Your task to perform on an android device: Open settings Image 0: 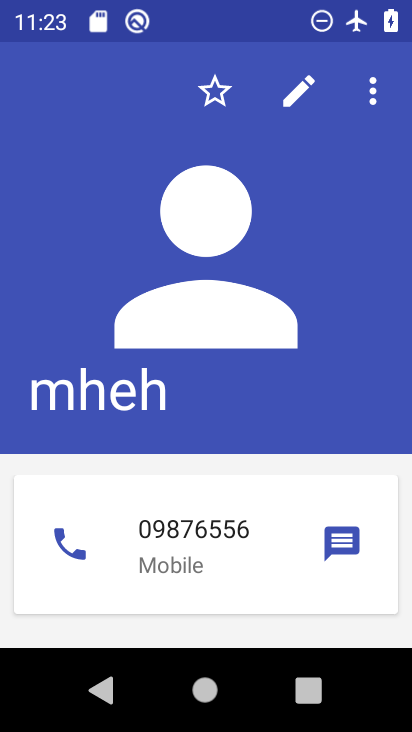
Step 0: press home button
Your task to perform on an android device: Open settings Image 1: 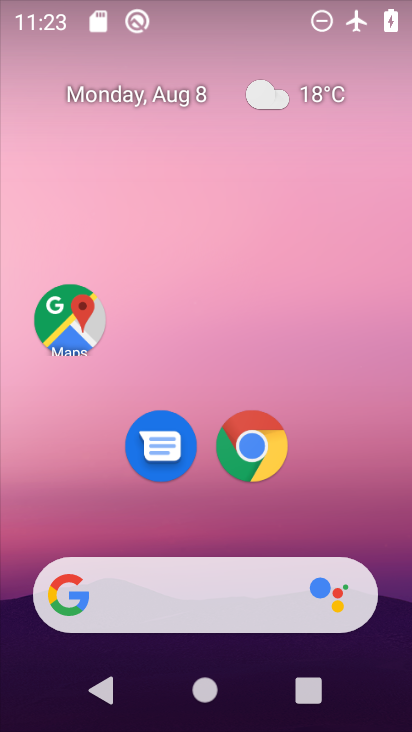
Step 1: drag from (390, 651) to (317, 166)
Your task to perform on an android device: Open settings Image 2: 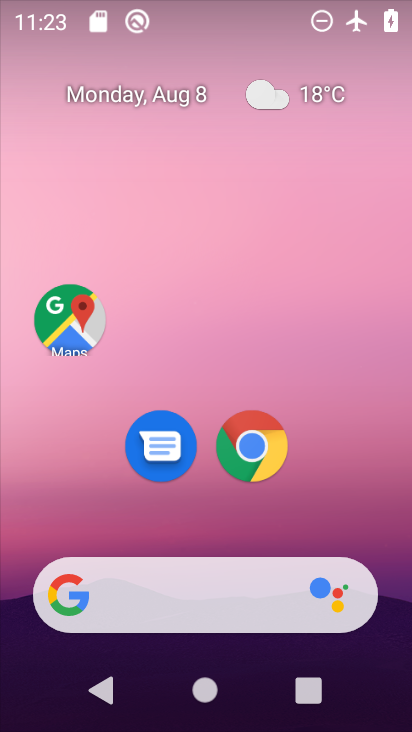
Step 2: drag from (411, 654) to (374, 194)
Your task to perform on an android device: Open settings Image 3: 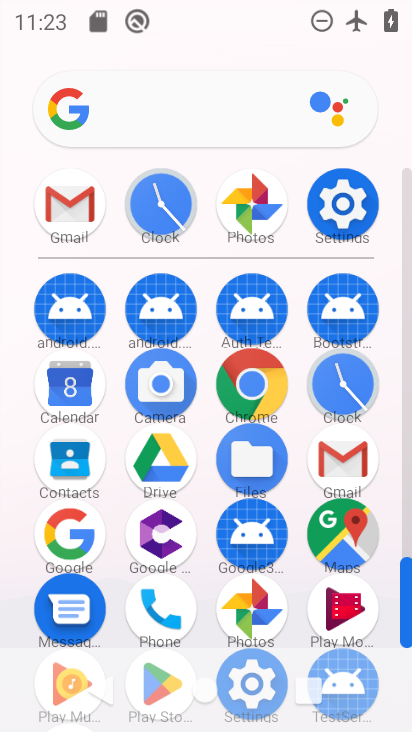
Step 3: drag from (408, 534) to (400, 409)
Your task to perform on an android device: Open settings Image 4: 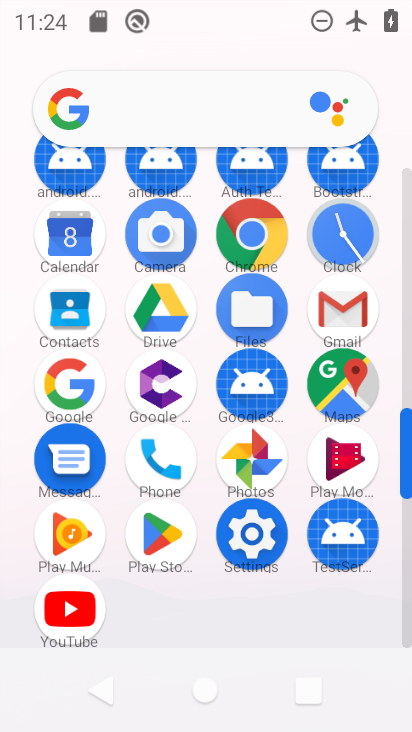
Step 4: click (248, 533)
Your task to perform on an android device: Open settings Image 5: 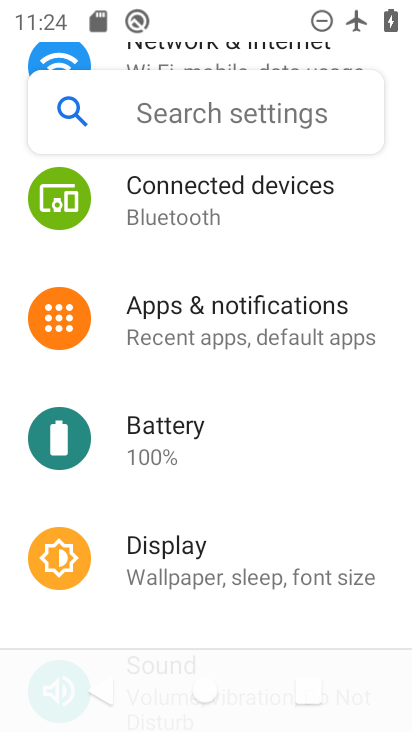
Step 5: task complete